Your task to perform on an android device: Open Amazon Image 0: 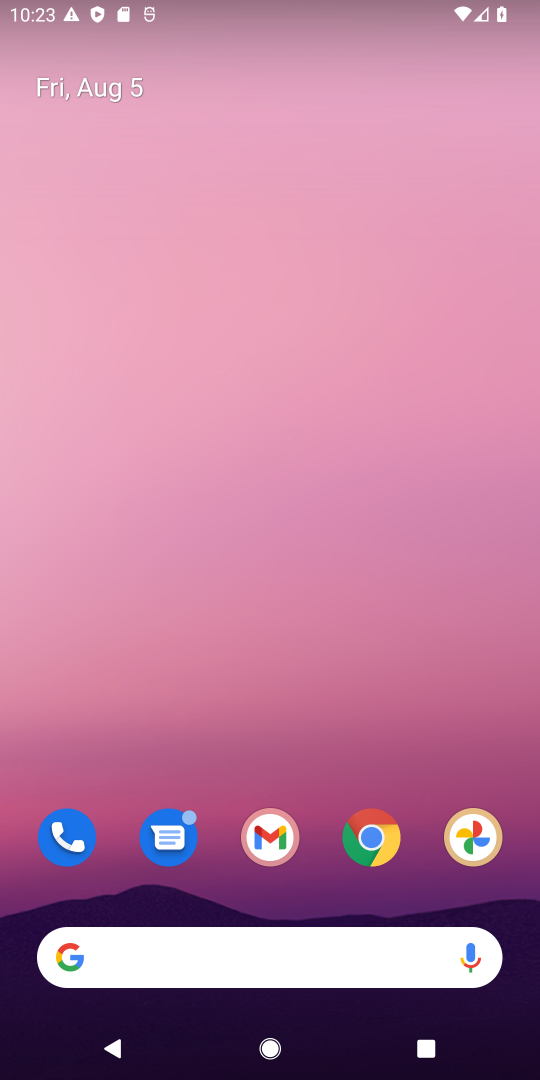
Step 0: click (383, 827)
Your task to perform on an android device: Open Amazon Image 1: 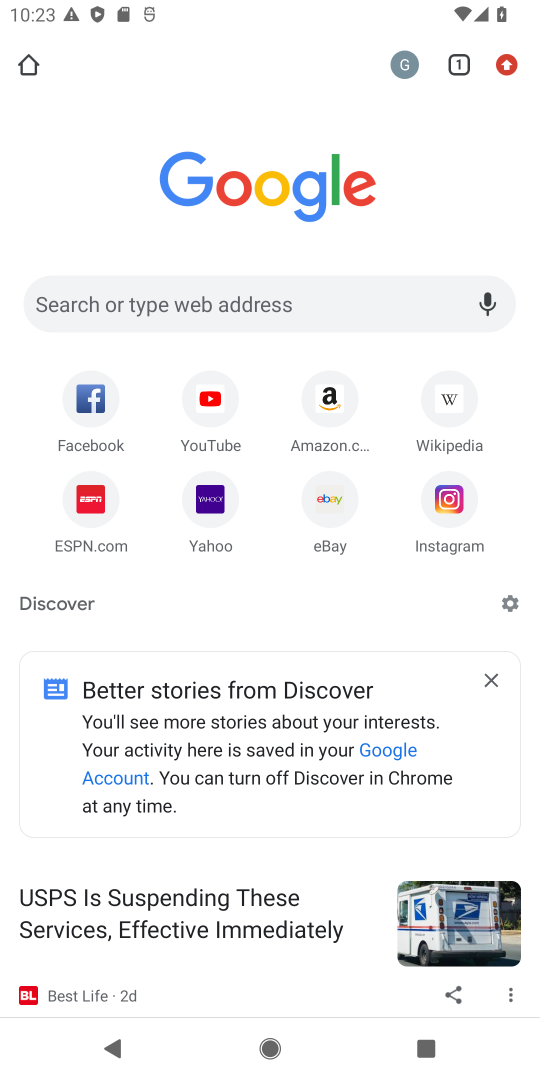
Step 1: click (331, 389)
Your task to perform on an android device: Open Amazon Image 2: 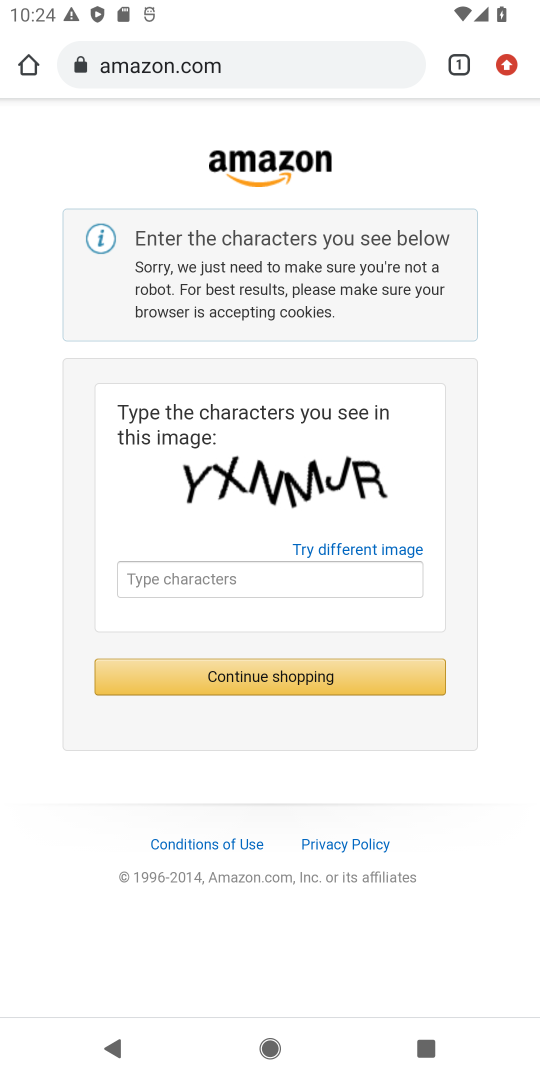
Step 2: click (279, 572)
Your task to perform on an android device: Open Amazon Image 3: 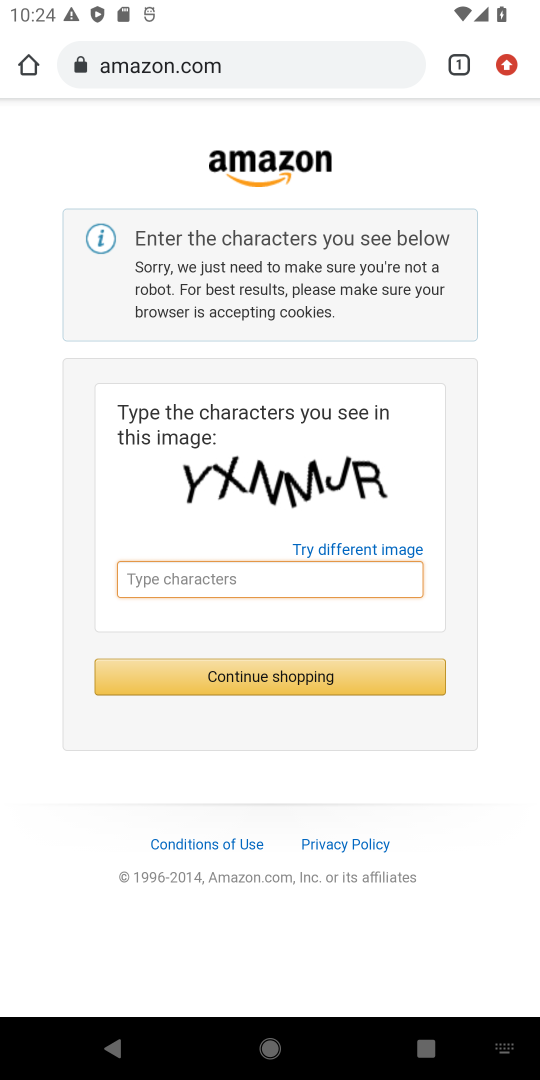
Step 3: type "YXNMJR"
Your task to perform on an android device: Open Amazon Image 4: 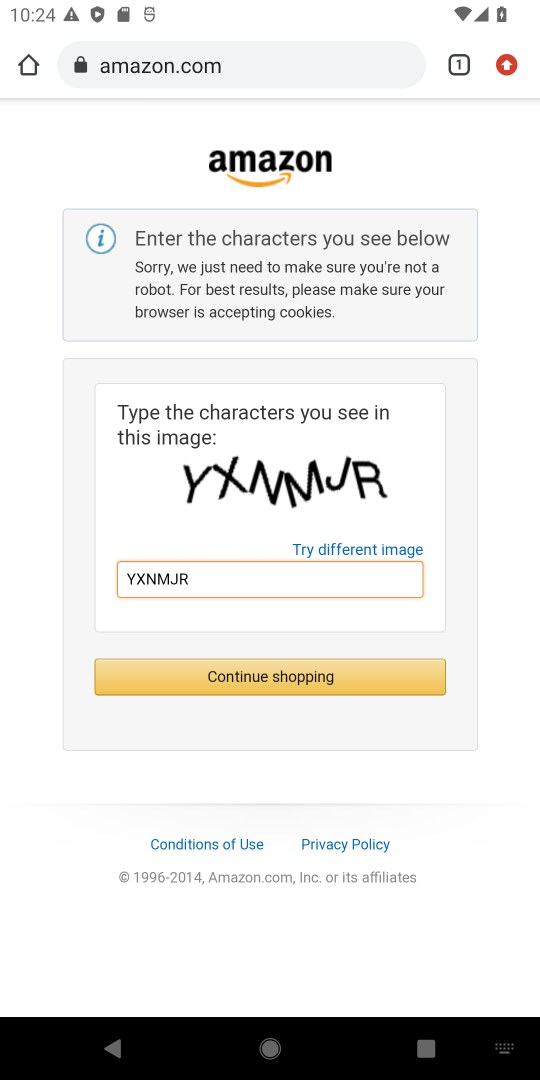
Step 4: click (403, 677)
Your task to perform on an android device: Open Amazon Image 5: 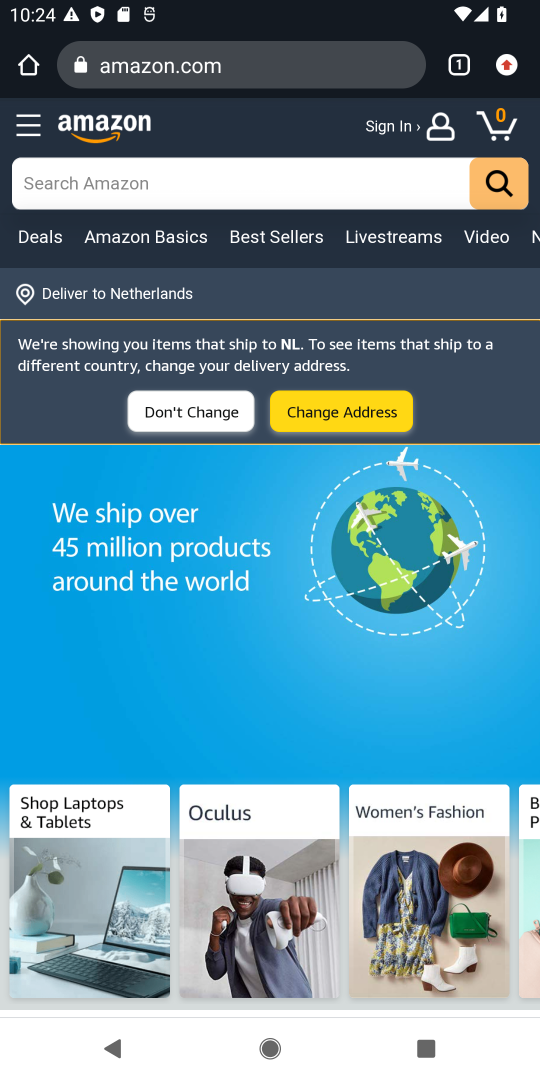
Step 5: task complete